Your task to perform on an android device: turn on showing notifications on the lock screen Image 0: 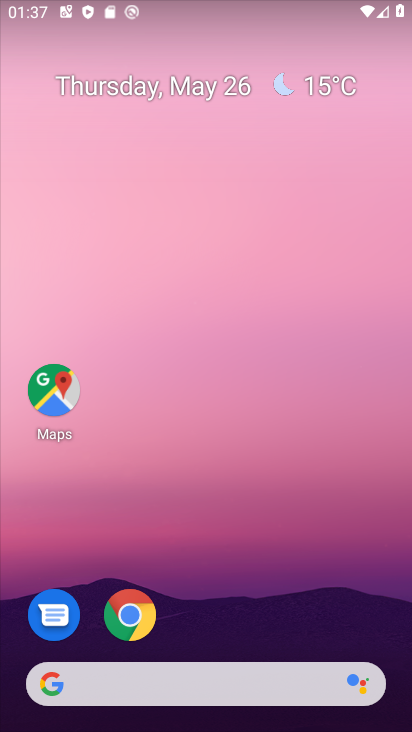
Step 0: drag from (231, 586) to (288, 57)
Your task to perform on an android device: turn on showing notifications on the lock screen Image 1: 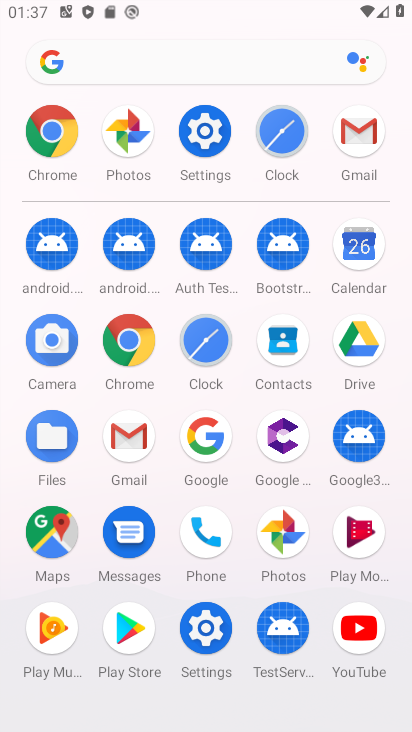
Step 1: click (216, 127)
Your task to perform on an android device: turn on showing notifications on the lock screen Image 2: 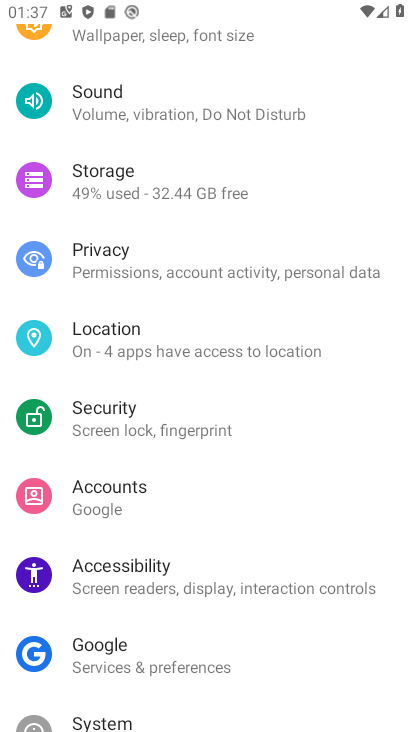
Step 2: drag from (255, 149) to (173, 723)
Your task to perform on an android device: turn on showing notifications on the lock screen Image 3: 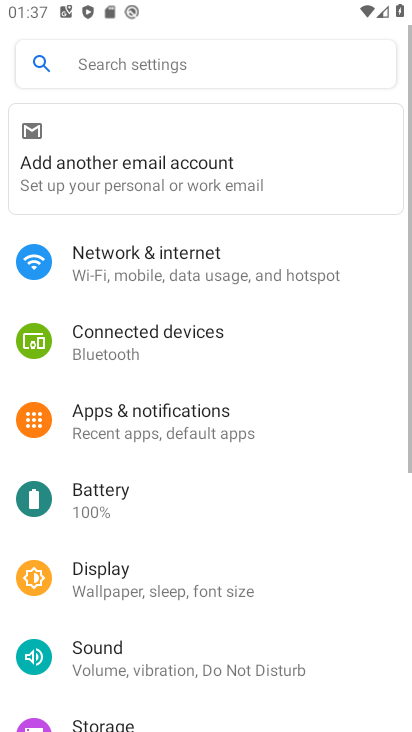
Step 3: click (209, 387)
Your task to perform on an android device: turn on showing notifications on the lock screen Image 4: 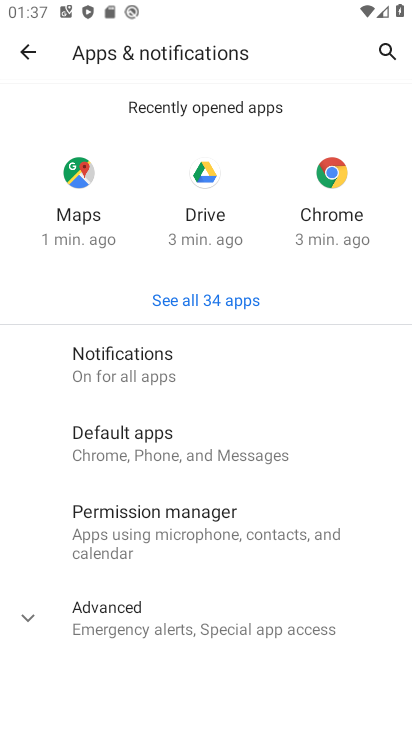
Step 4: click (184, 350)
Your task to perform on an android device: turn on showing notifications on the lock screen Image 5: 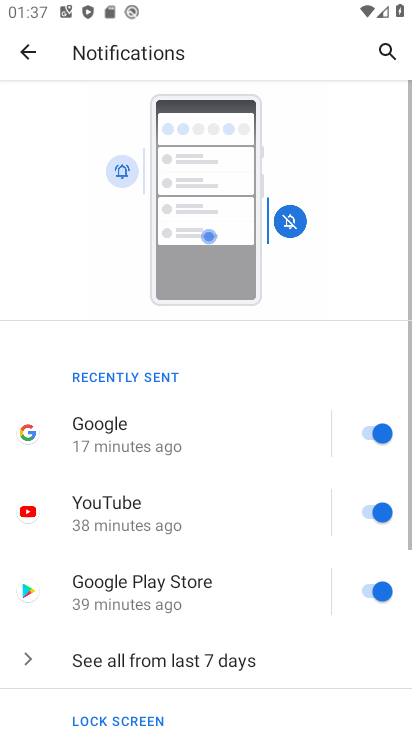
Step 5: drag from (173, 640) to (210, 113)
Your task to perform on an android device: turn on showing notifications on the lock screen Image 6: 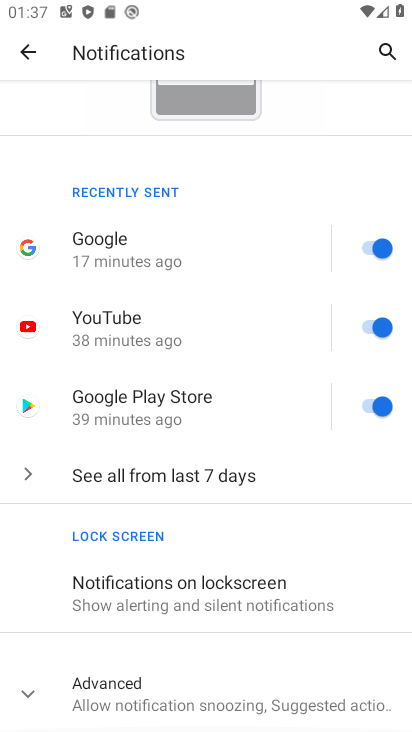
Step 6: click (215, 579)
Your task to perform on an android device: turn on showing notifications on the lock screen Image 7: 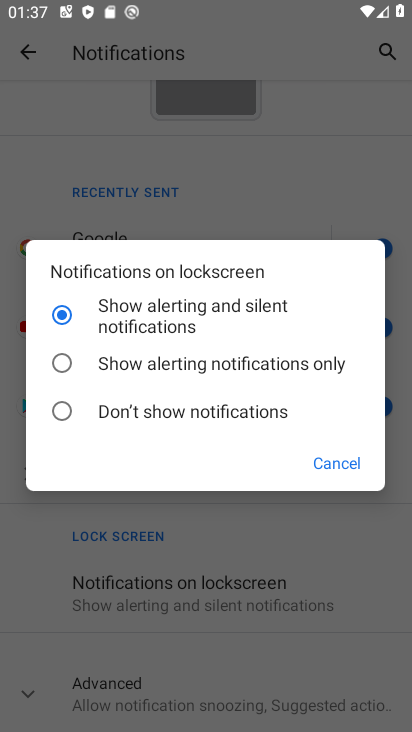
Step 7: click (61, 314)
Your task to perform on an android device: turn on showing notifications on the lock screen Image 8: 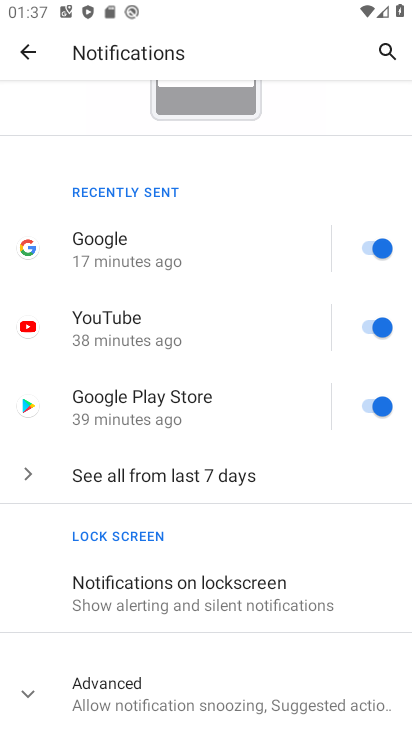
Step 8: task complete